Your task to perform on an android device: Go to Android settings Image 0: 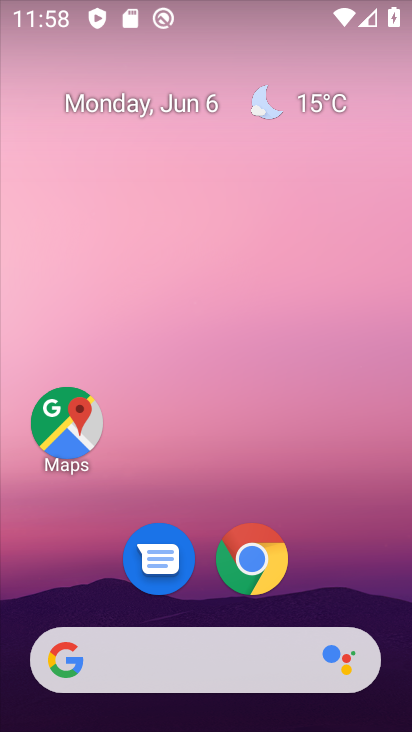
Step 0: drag from (320, 614) to (250, 25)
Your task to perform on an android device: Go to Android settings Image 1: 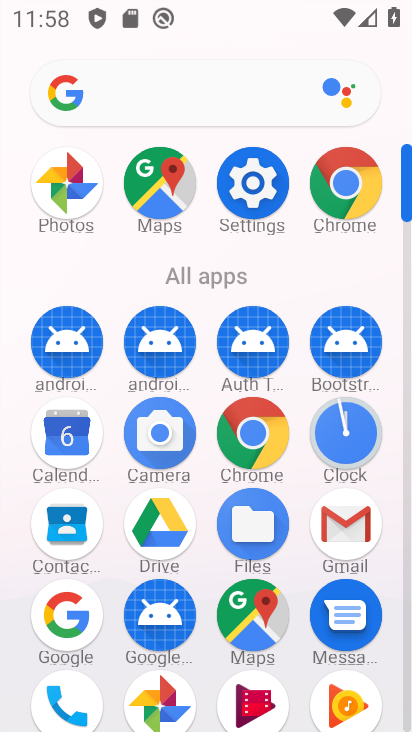
Step 1: click (252, 163)
Your task to perform on an android device: Go to Android settings Image 2: 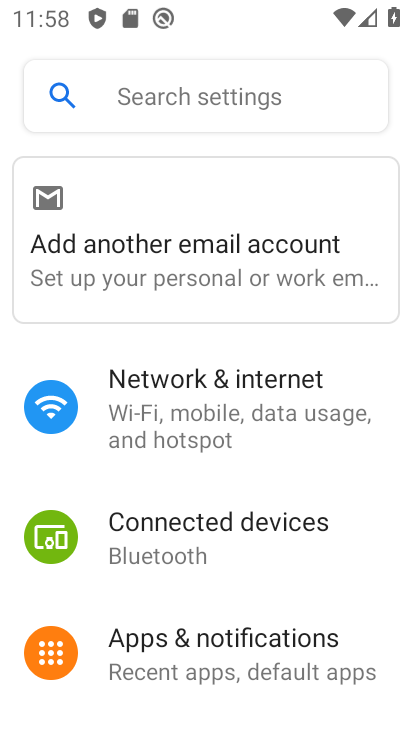
Step 2: task complete